Your task to perform on an android device: Open Google Chrome Image 0: 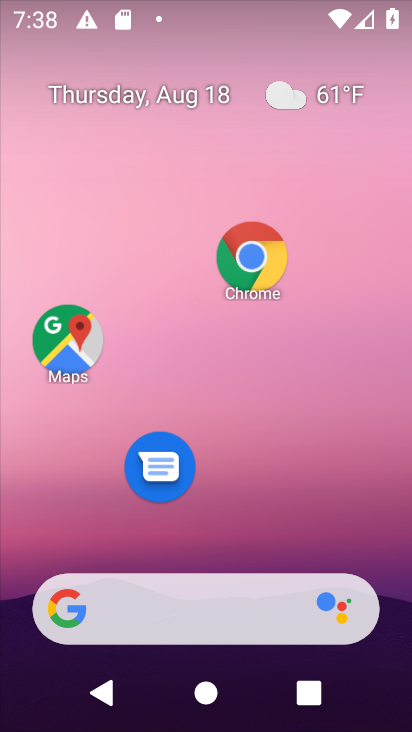
Step 0: click (254, 247)
Your task to perform on an android device: Open Google Chrome Image 1: 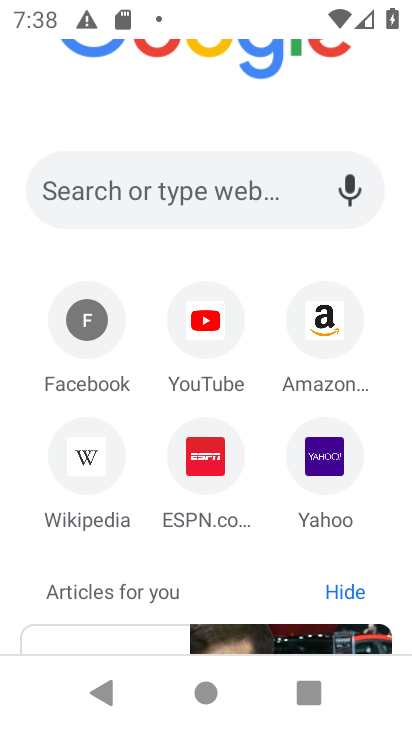
Step 1: task complete